Your task to perform on an android device: Go to settings Image 0: 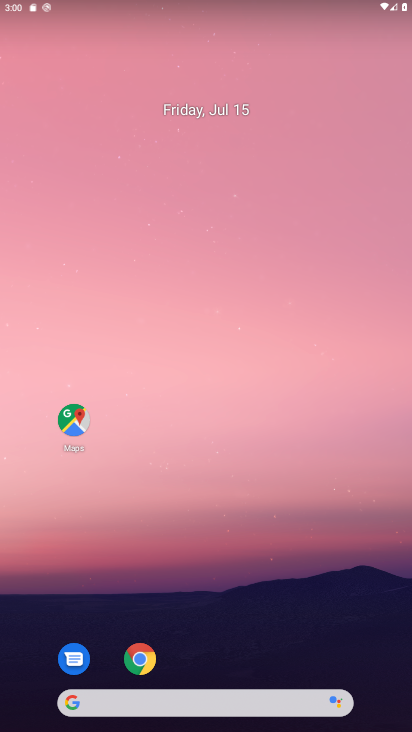
Step 0: drag from (384, 638) to (269, 74)
Your task to perform on an android device: Go to settings Image 1: 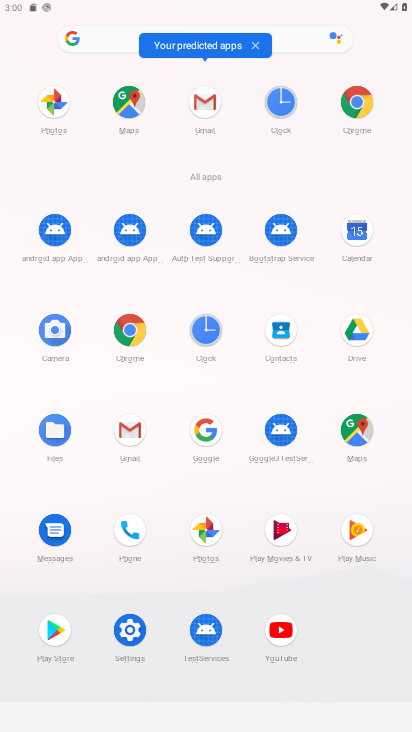
Step 1: click (133, 630)
Your task to perform on an android device: Go to settings Image 2: 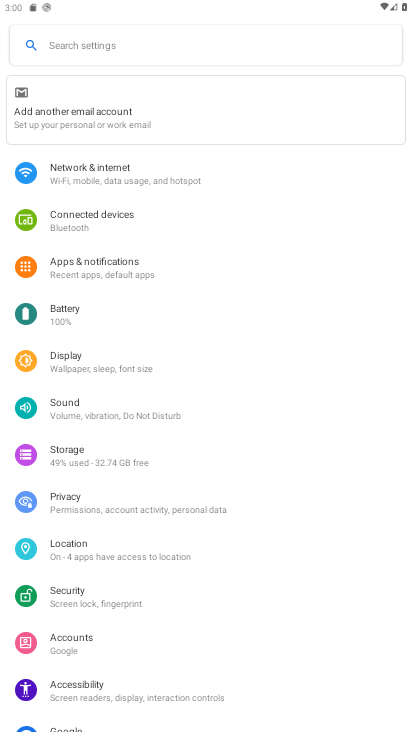
Step 2: task complete